Your task to perform on an android device: check the backup settings in the google photos Image 0: 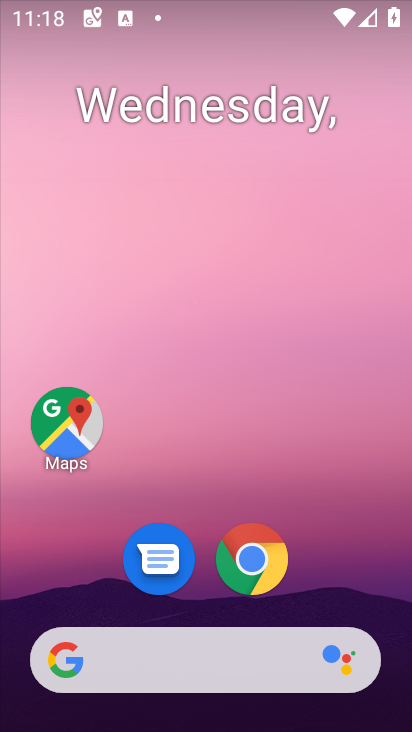
Step 0: drag from (263, 615) to (294, 248)
Your task to perform on an android device: check the backup settings in the google photos Image 1: 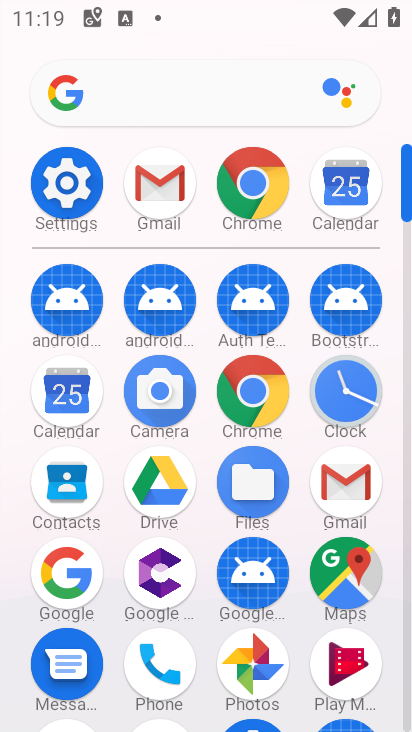
Step 1: drag from (283, 526) to (297, 295)
Your task to perform on an android device: check the backup settings in the google photos Image 2: 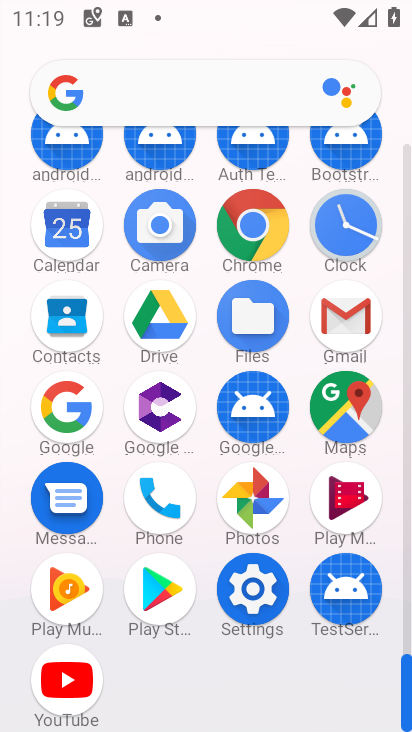
Step 2: click (260, 499)
Your task to perform on an android device: check the backup settings in the google photos Image 3: 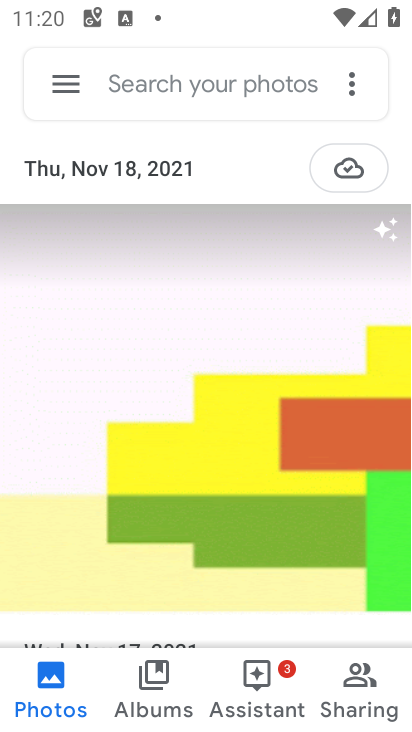
Step 3: click (66, 90)
Your task to perform on an android device: check the backup settings in the google photos Image 4: 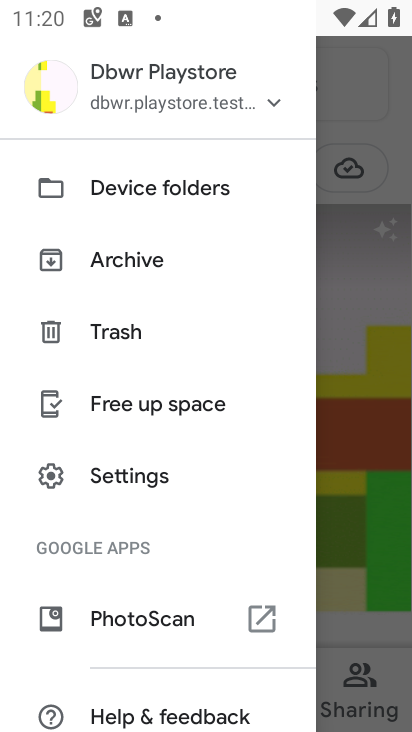
Step 4: click (148, 477)
Your task to perform on an android device: check the backup settings in the google photos Image 5: 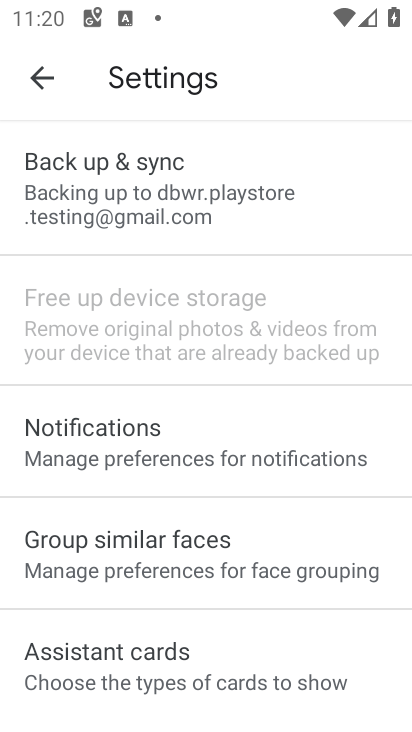
Step 5: click (191, 207)
Your task to perform on an android device: check the backup settings in the google photos Image 6: 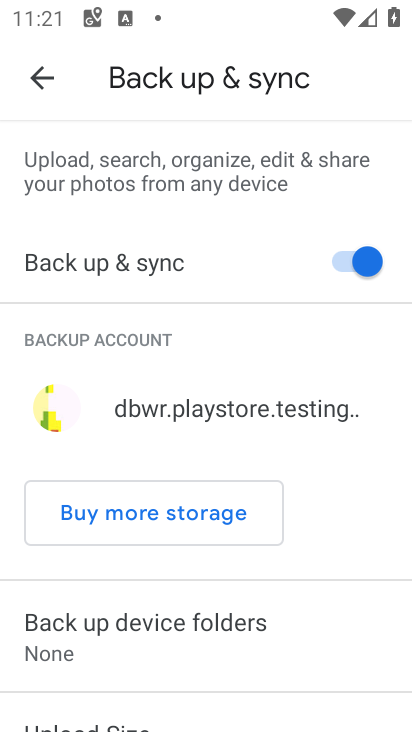
Step 6: task complete